Your task to perform on an android device: toggle show notifications on the lock screen Image 0: 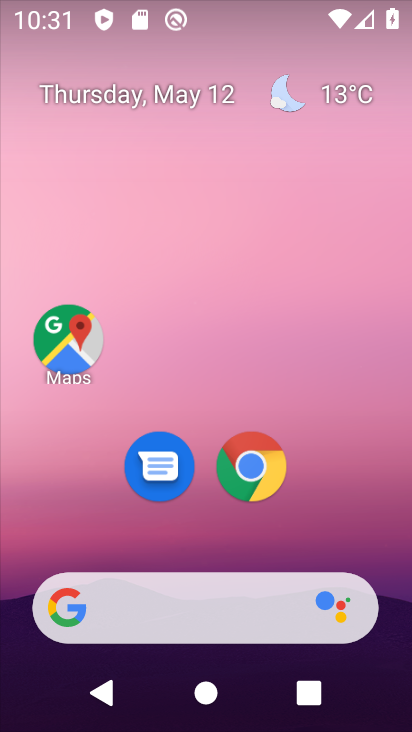
Step 0: drag from (328, 515) to (336, 137)
Your task to perform on an android device: toggle show notifications on the lock screen Image 1: 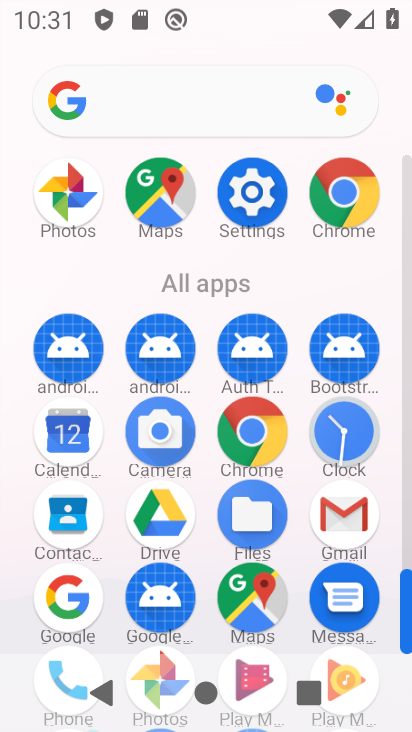
Step 1: drag from (301, 565) to (299, 300)
Your task to perform on an android device: toggle show notifications on the lock screen Image 2: 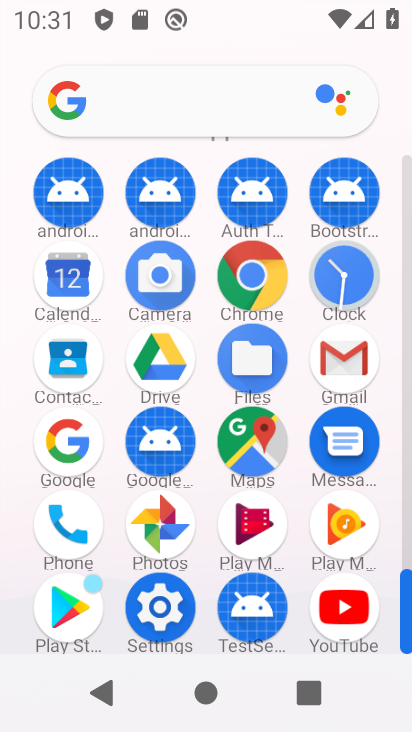
Step 2: click (170, 597)
Your task to perform on an android device: toggle show notifications on the lock screen Image 3: 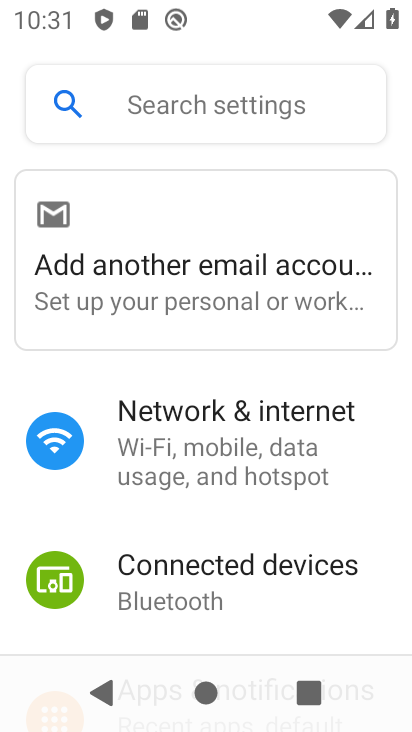
Step 3: drag from (271, 615) to (271, 373)
Your task to perform on an android device: toggle show notifications on the lock screen Image 4: 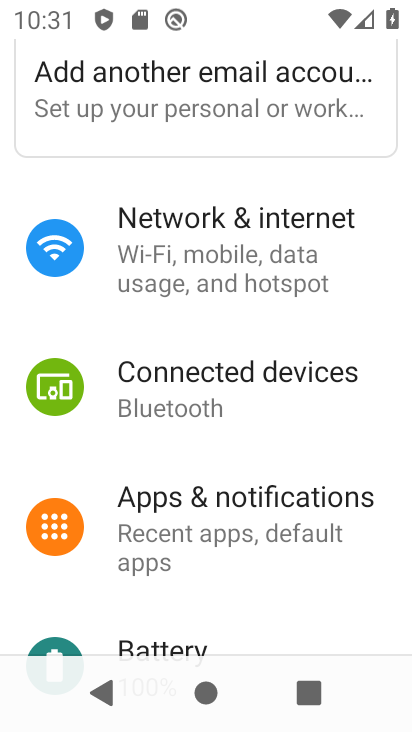
Step 4: click (220, 531)
Your task to perform on an android device: toggle show notifications on the lock screen Image 5: 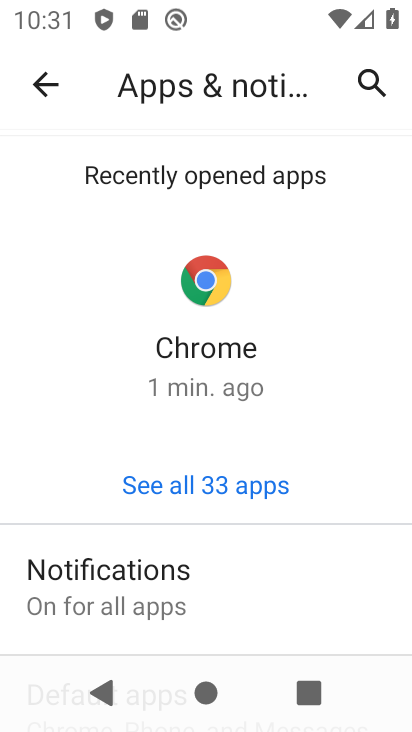
Step 5: drag from (263, 590) to (302, 335)
Your task to perform on an android device: toggle show notifications on the lock screen Image 6: 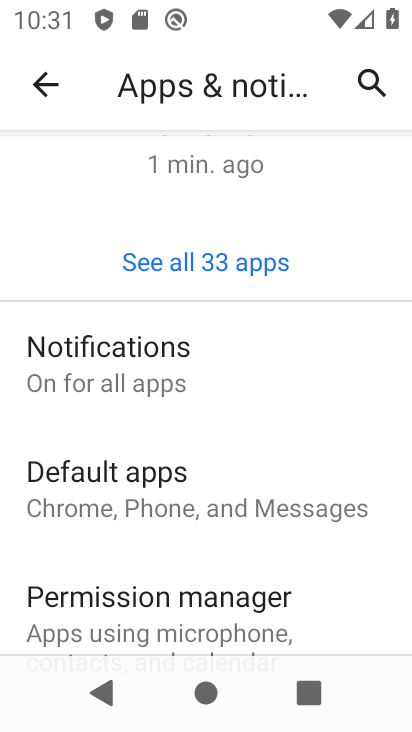
Step 6: click (76, 352)
Your task to perform on an android device: toggle show notifications on the lock screen Image 7: 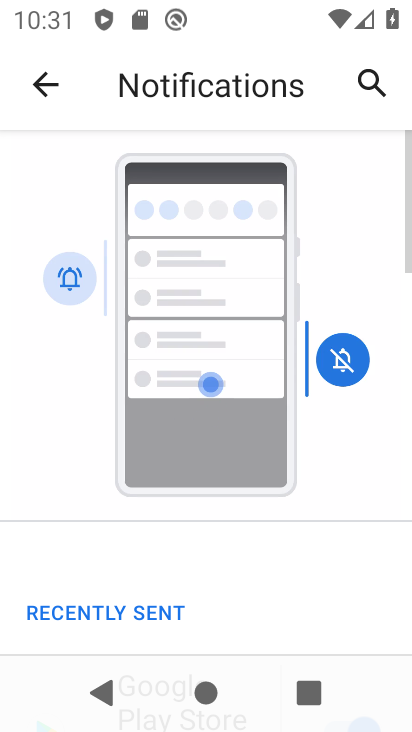
Step 7: drag from (295, 594) to (329, 196)
Your task to perform on an android device: toggle show notifications on the lock screen Image 8: 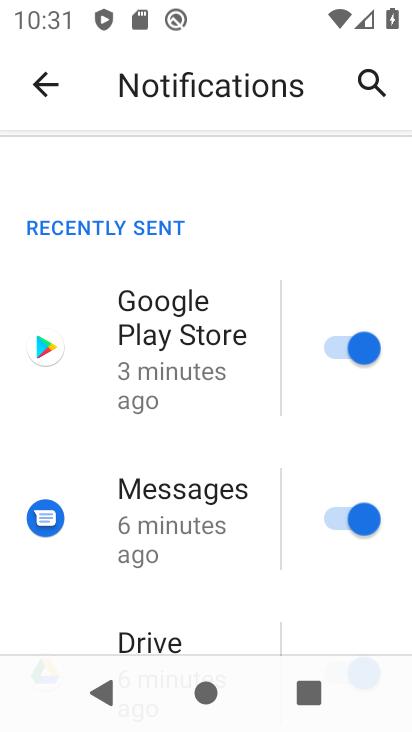
Step 8: drag from (225, 576) to (225, 244)
Your task to perform on an android device: toggle show notifications on the lock screen Image 9: 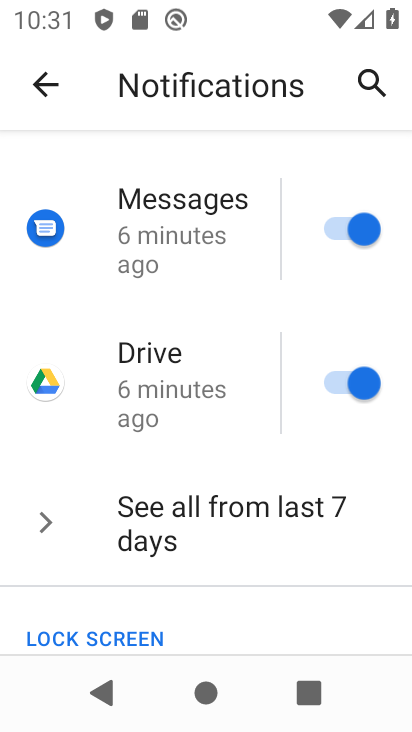
Step 9: drag from (209, 602) to (243, 282)
Your task to perform on an android device: toggle show notifications on the lock screen Image 10: 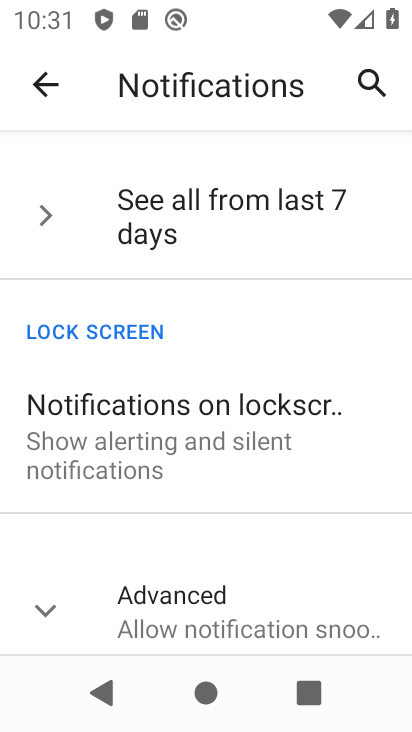
Step 10: click (195, 449)
Your task to perform on an android device: toggle show notifications on the lock screen Image 11: 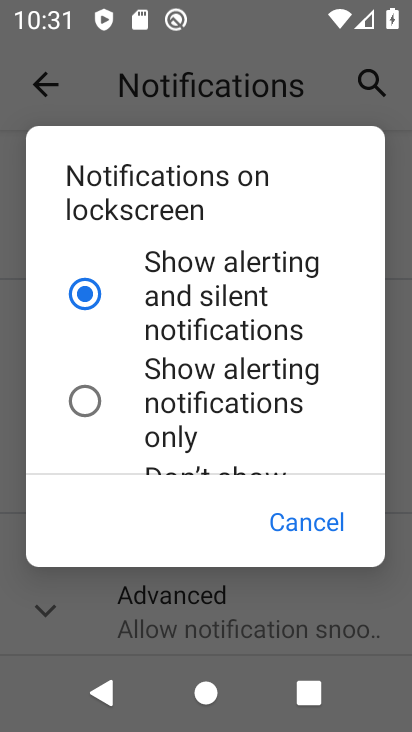
Step 11: drag from (233, 466) to (247, 247)
Your task to perform on an android device: toggle show notifications on the lock screen Image 12: 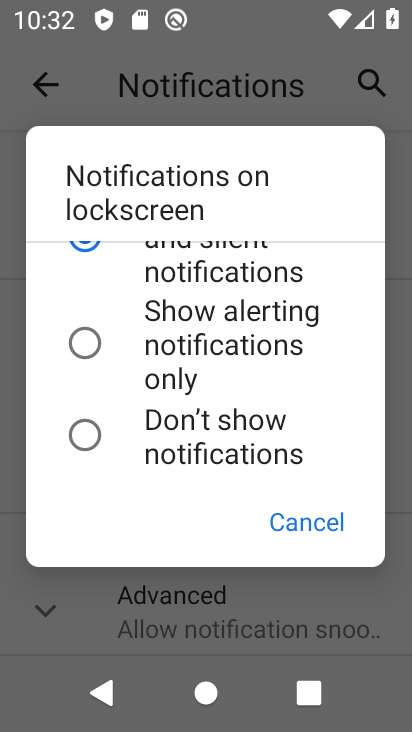
Step 12: click (82, 437)
Your task to perform on an android device: toggle show notifications on the lock screen Image 13: 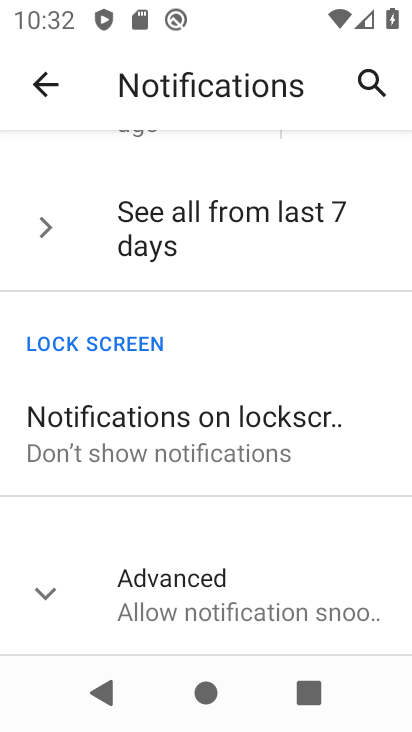
Step 13: task complete